Your task to perform on an android device: see sites visited before in the chrome app Image 0: 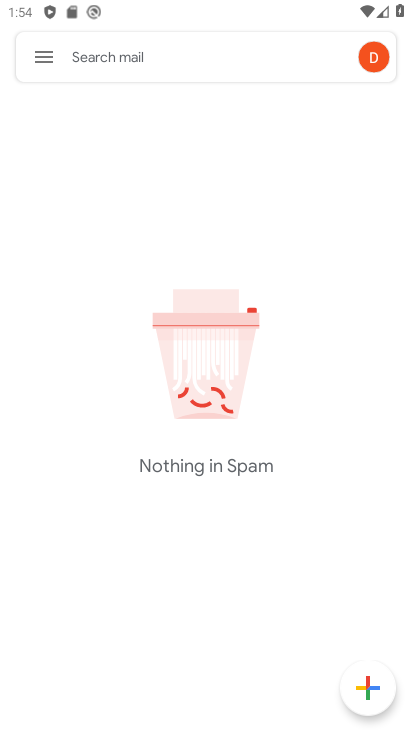
Step 0: press home button
Your task to perform on an android device: see sites visited before in the chrome app Image 1: 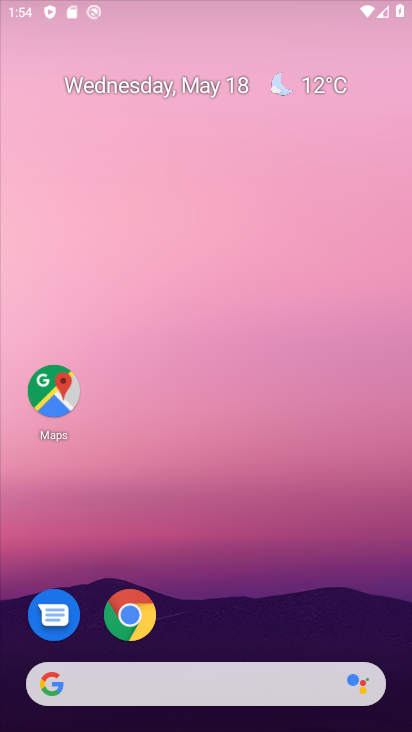
Step 1: drag from (342, 643) to (211, 120)
Your task to perform on an android device: see sites visited before in the chrome app Image 2: 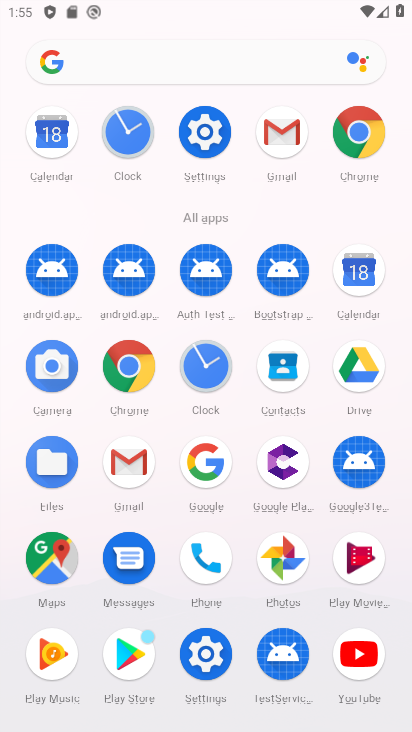
Step 2: click (123, 367)
Your task to perform on an android device: see sites visited before in the chrome app Image 3: 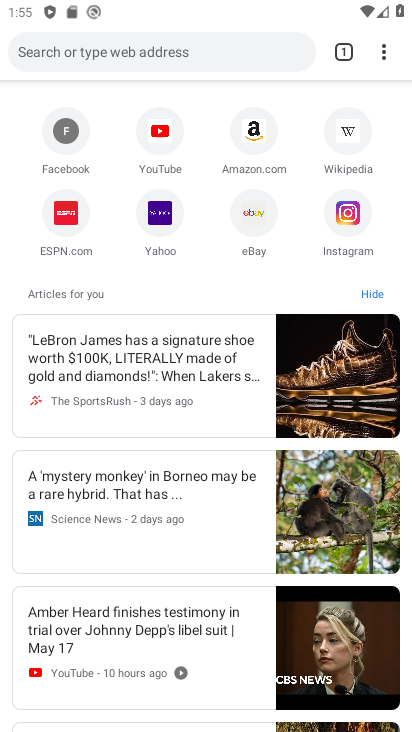
Step 3: click (387, 49)
Your task to perform on an android device: see sites visited before in the chrome app Image 4: 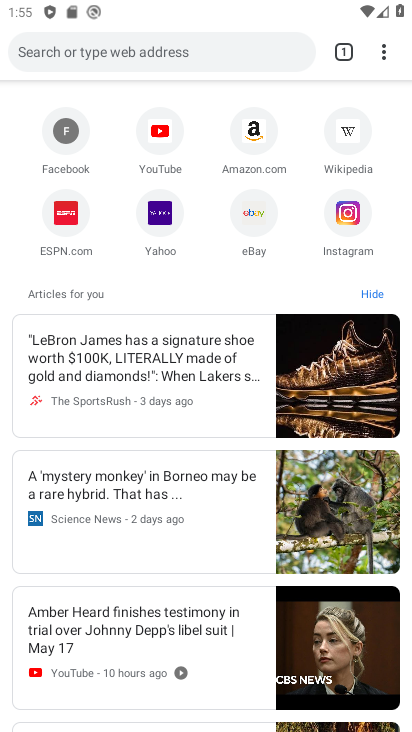
Step 4: click (382, 45)
Your task to perform on an android device: see sites visited before in the chrome app Image 5: 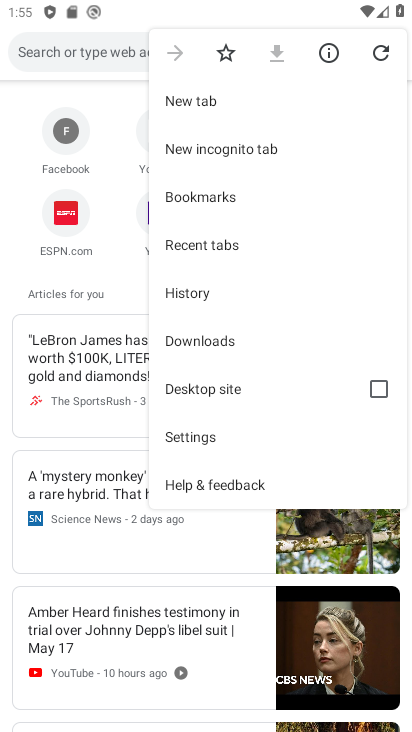
Step 5: click (210, 300)
Your task to perform on an android device: see sites visited before in the chrome app Image 6: 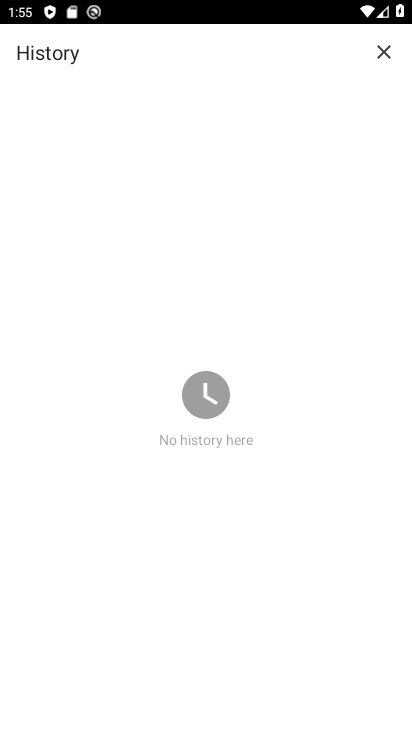
Step 6: task complete